Your task to perform on an android device: Turn on the flashlight Image 0: 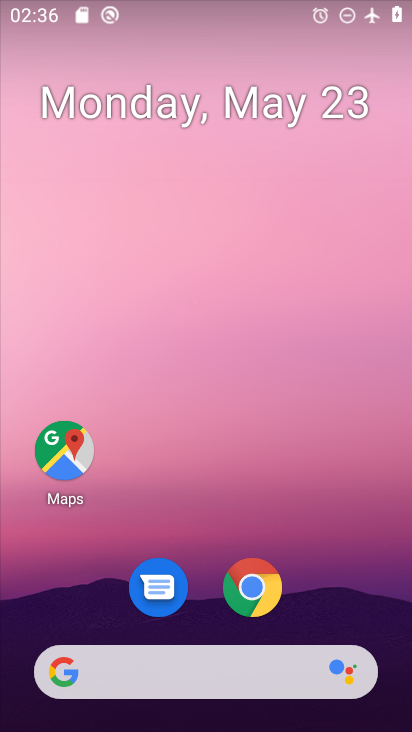
Step 0: drag from (307, 633) to (260, 199)
Your task to perform on an android device: Turn on the flashlight Image 1: 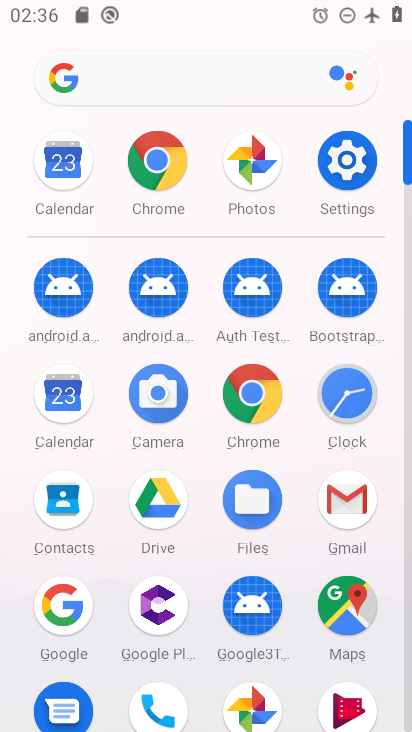
Step 1: click (347, 171)
Your task to perform on an android device: Turn on the flashlight Image 2: 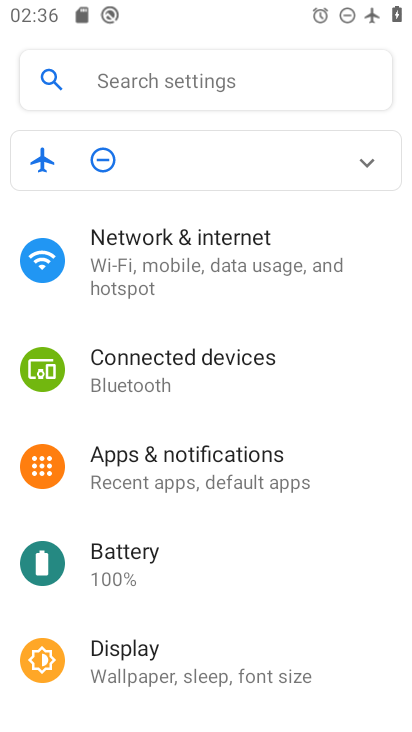
Step 2: task complete